Your task to perform on an android device: Open my contact list Image 0: 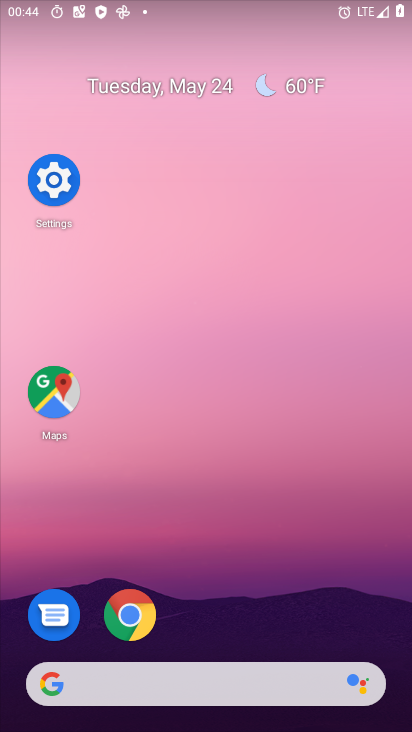
Step 0: drag from (236, 574) to (240, 136)
Your task to perform on an android device: Open my contact list Image 1: 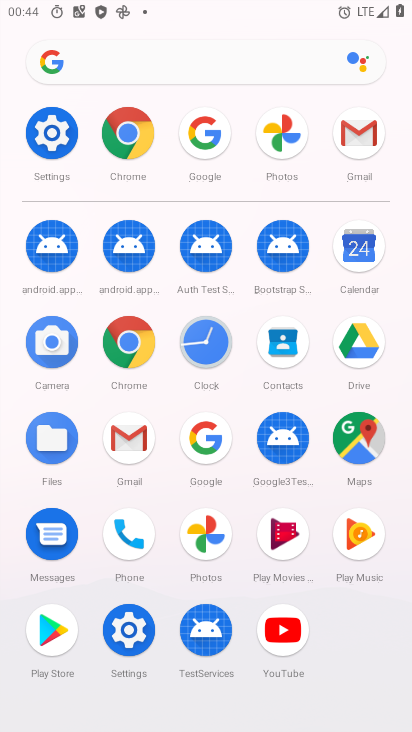
Step 1: click (284, 344)
Your task to perform on an android device: Open my contact list Image 2: 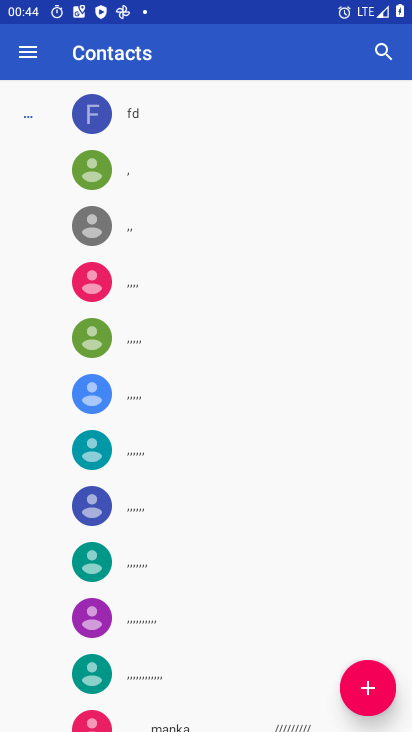
Step 2: click (373, 682)
Your task to perform on an android device: Open my contact list Image 3: 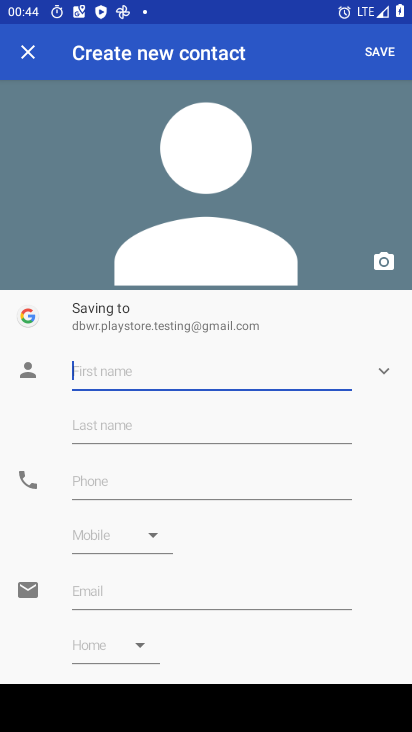
Step 3: task complete